Your task to perform on an android device: Open Yahoo.com Image 0: 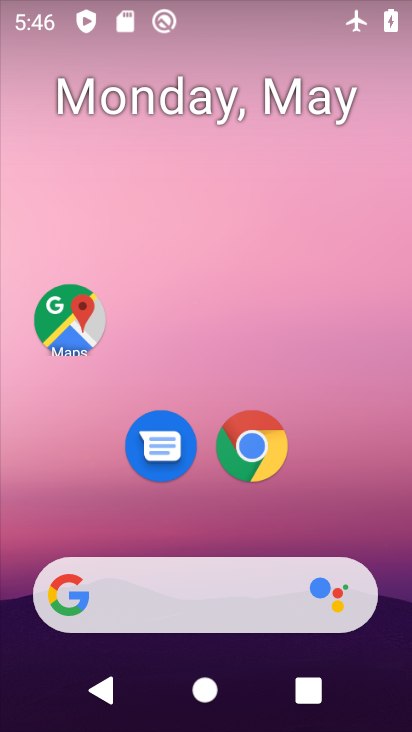
Step 0: click (244, 452)
Your task to perform on an android device: Open Yahoo.com Image 1: 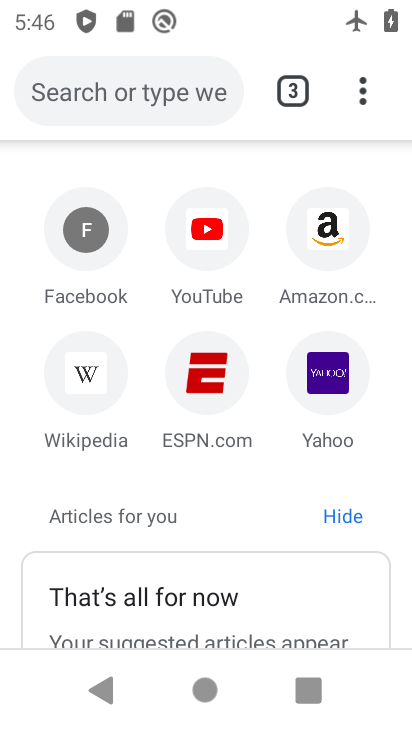
Step 1: click (335, 394)
Your task to perform on an android device: Open Yahoo.com Image 2: 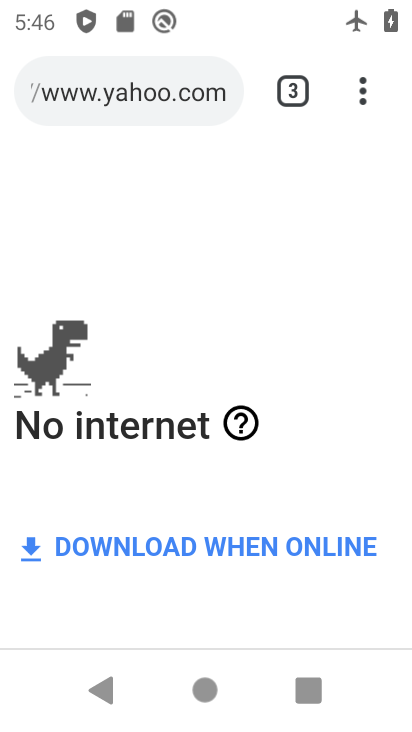
Step 2: task complete